Your task to perform on an android device: Go to privacy settings Image 0: 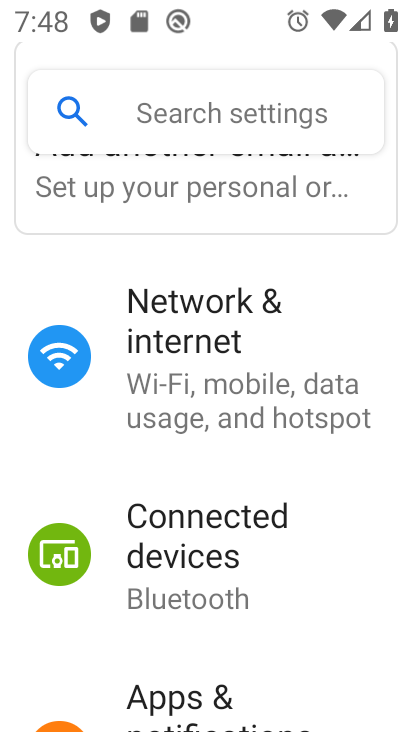
Step 0: press home button
Your task to perform on an android device: Go to privacy settings Image 1: 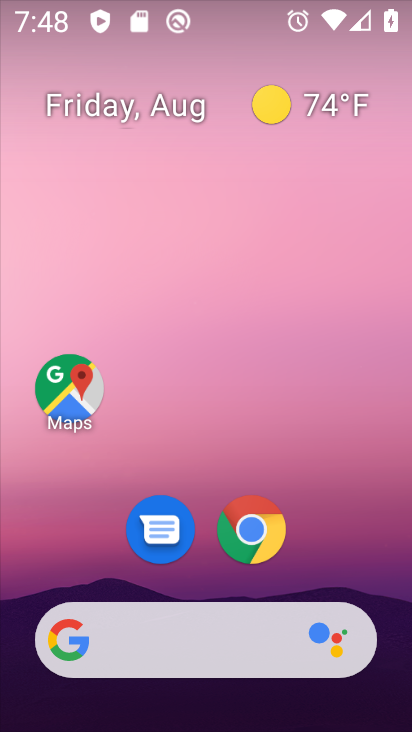
Step 1: drag from (174, 663) to (198, 231)
Your task to perform on an android device: Go to privacy settings Image 2: 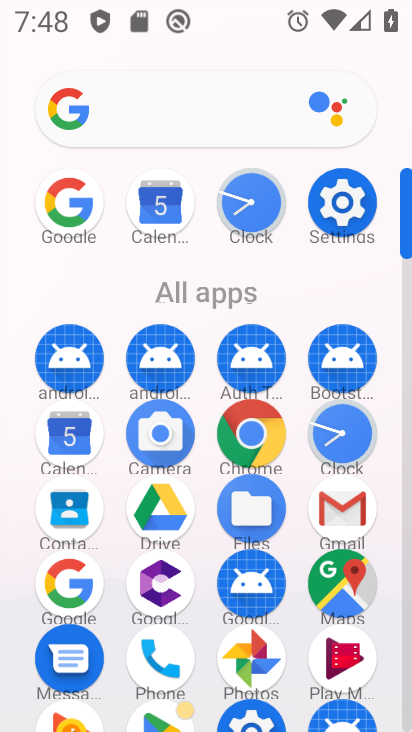
Step 2: click (342, 203)
Your task to perform on an android device: Go to privacy settings Image 3: 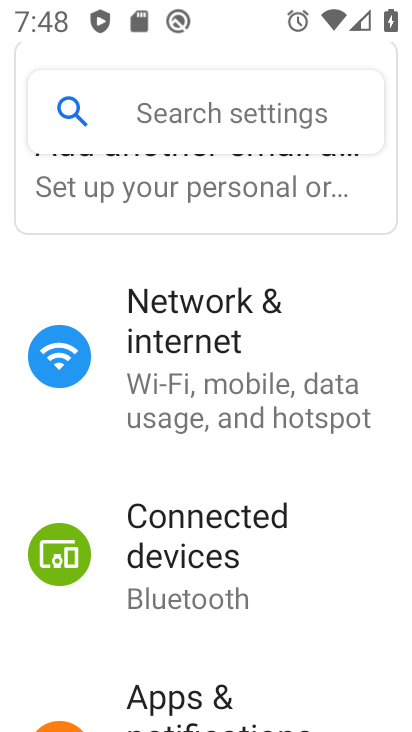
Step 3: drag from (182, 623) to (214, 463)
Your task to perform on an android device: Go to privacy settings Image 4: 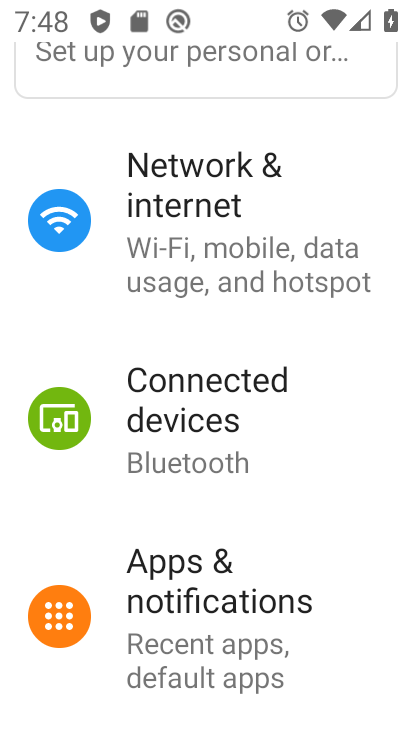
Step 4: drag from (246, 556) to (290, 431)
Your task to perform on an android device: Go to privacy settings Image 5: 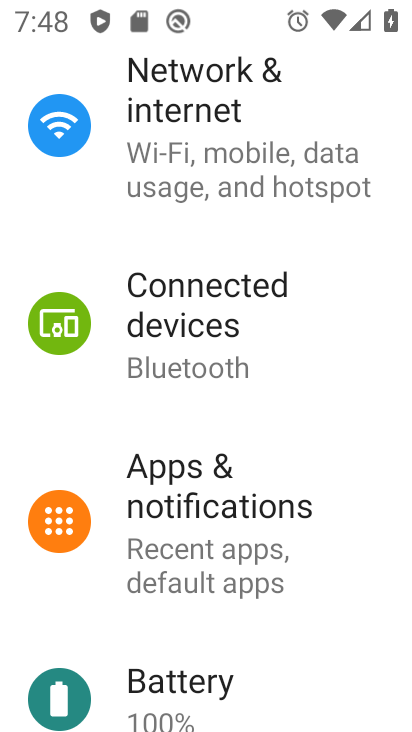
Step 5: drag from (174, 651) to (261, 482)
Your task to perform on an android device: Go to privacy settings Image 6: 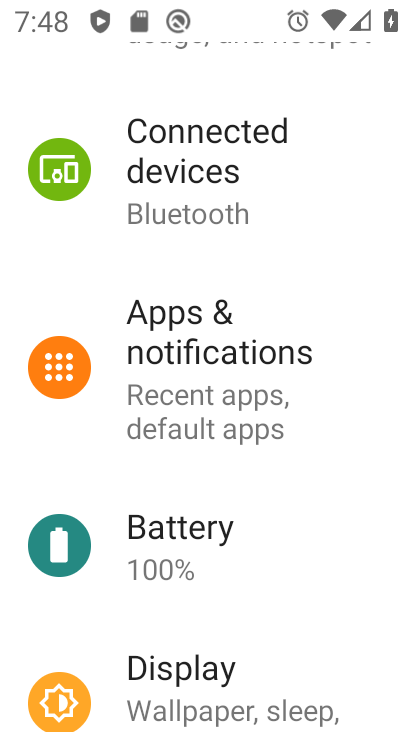
Step 6: drag from (167, 609) to (266, 452)
Your task to perform on an android device: Go to privacy settings Image 7: 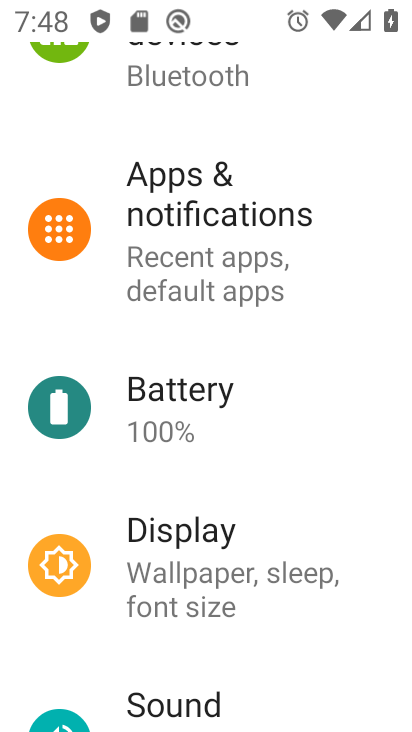
Step 7: drag from (150, 645) to (244, 496)
Your task to perform on an android device: Go to privacy settings Image 8: 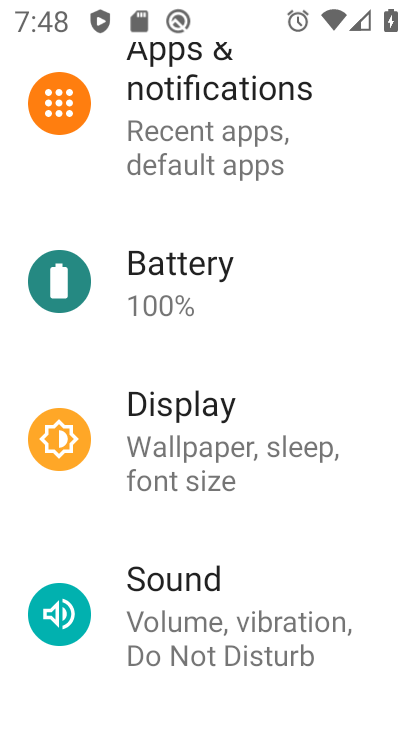
Step 8: drag from (193, 693) to (284, 534)
Your task to perform on an android device: Go to privacy settings Image 9: 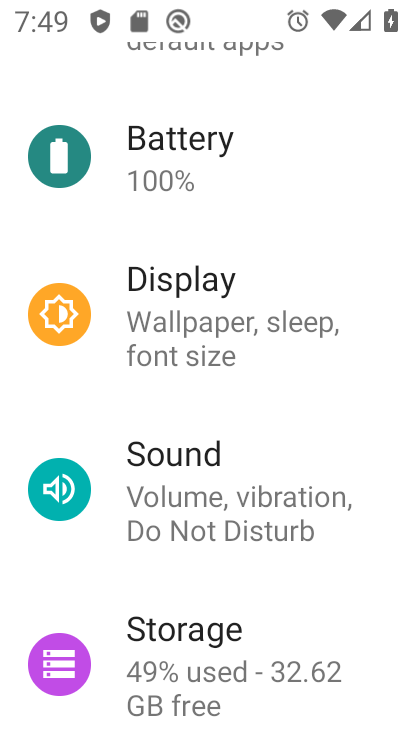
Step 9: drag from (184, 606) to (257, 425)
Your task to perform on an android device: Go to privacy settings Image 10: 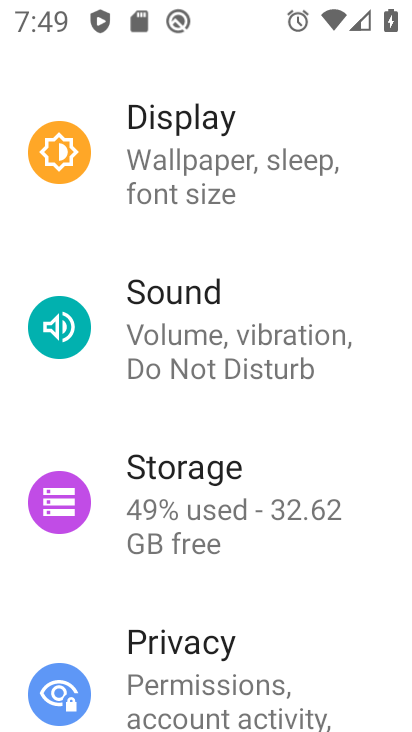
Step 10: drag from (183, 616) to (269, 436)
Your task to perform on an android device: Go to privacy settings Image 11: 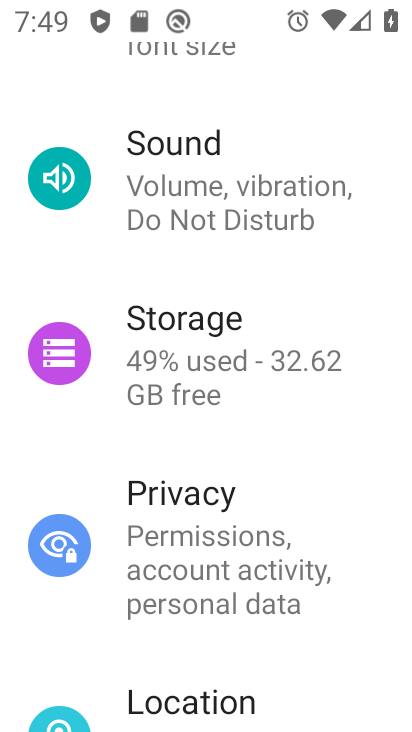
Step 11: click (207, 508)
Your task to perform on an android device: Go to privacy settings Image 12: 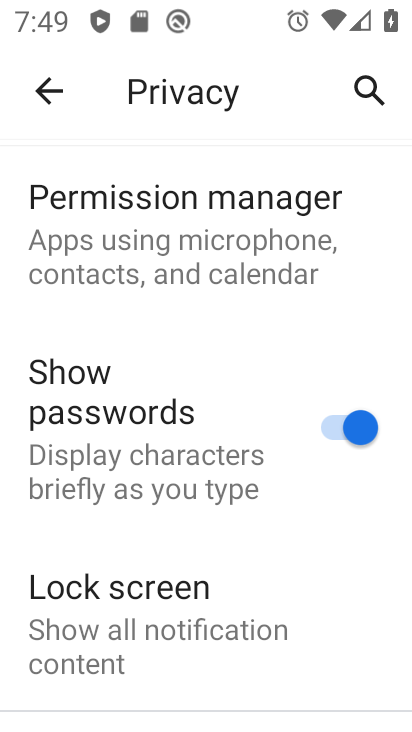
Step 12: task complete